Your task to perform on an android device: delete a single message in the gmail app Image 0: 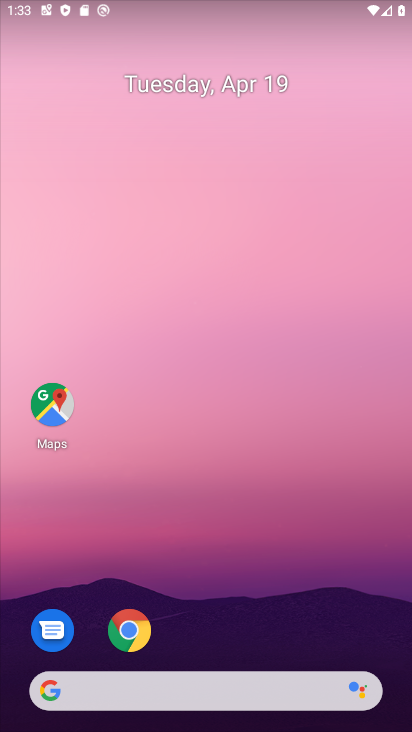
Step 0: drag from (218, 564) to (252, 35)
Your task to perform on an android device: delete a single message in the gmail app Image 1: 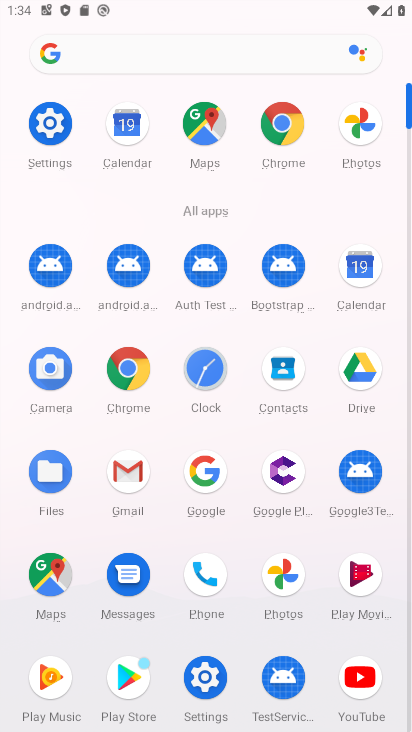
Step 1: drag from (252, 642) to (258, 277)
Your task to perform on an android device: delete a single message in the gmail app Image 2: 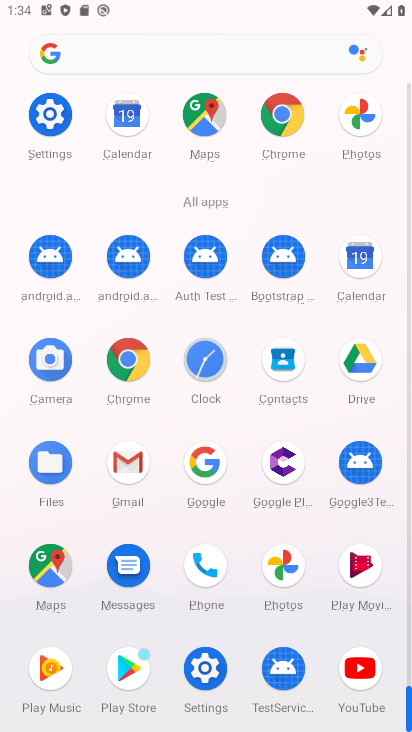
Step 2: drag from (224, 639) to (200, 302)
Your task to perform on an android device: delete a single message in the gmail app Image 3: 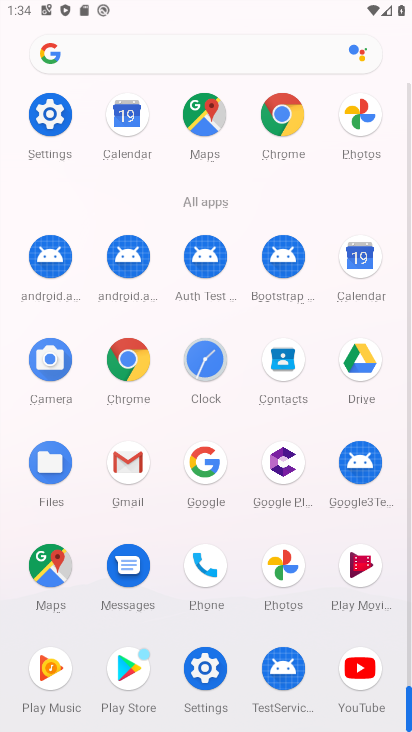
Step 3: click (163, 46)
Your task to perform on an android device: delete a single message in the gmail app Image 4: 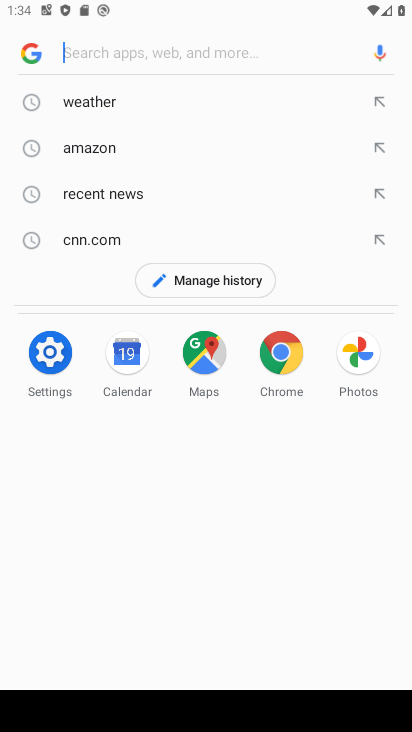
Step 4: type "we"
Your task to perform on an android device: delete a single message in the gmail app Image 5: 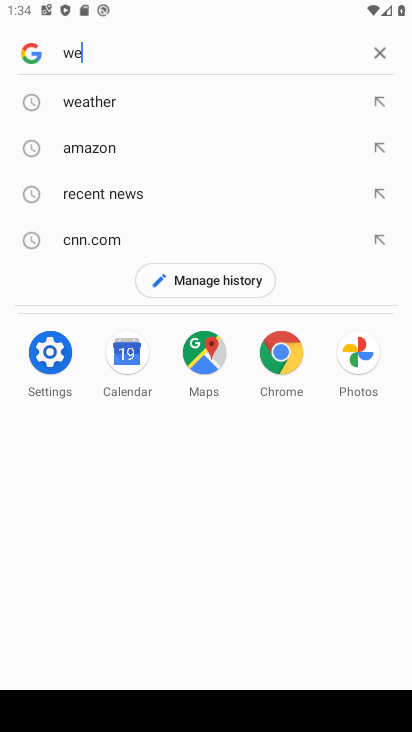
Step 5: press home button
Your task to perform on an android device: delete a single message in the gmail app Image 6: 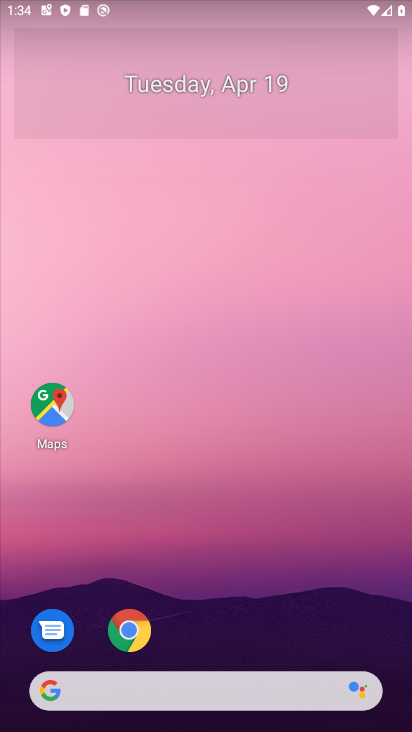
Step 6: drag from (233, 370) to (224, 65)
Your task to perform on an android device: delete a single message in the gmail app Image 7: 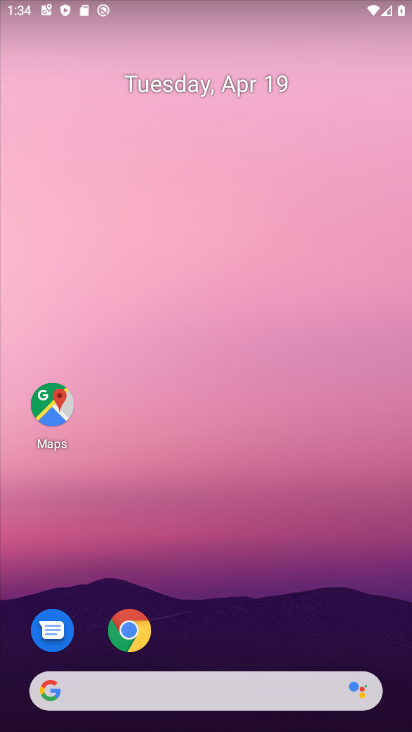
Step 7: drag from (244, 565) to (154, 17)
Your task to perform on an android device: delete a single message in the gmail app Image 8: 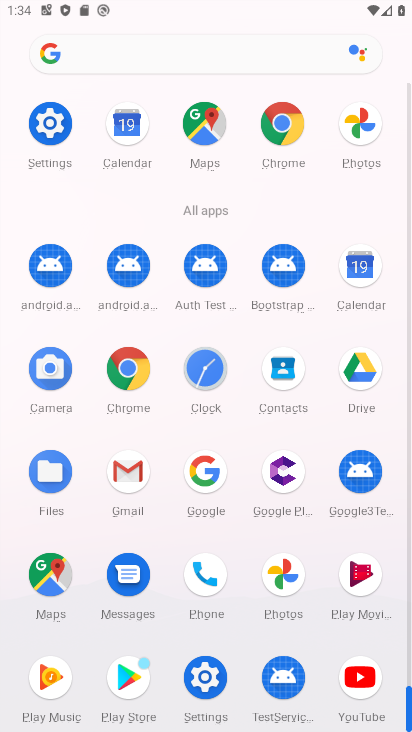
Step 8: click (121, 569)
Your task to perform on an android device: delete a single message in the gmail app Image 9: 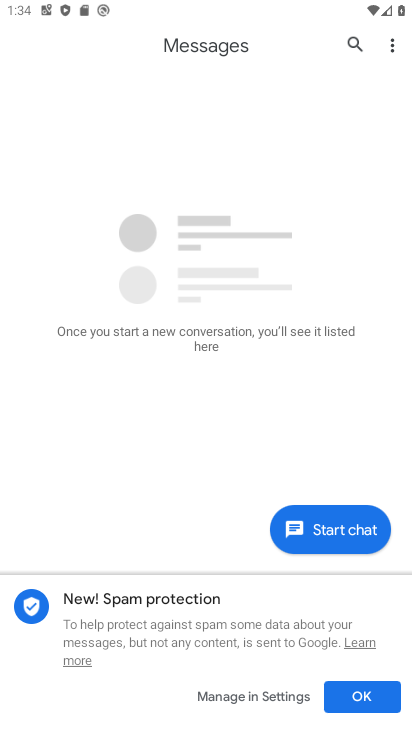
Step 9: press home button
Your task to perform on an android device: delete a single message in the gmail app Image 10: 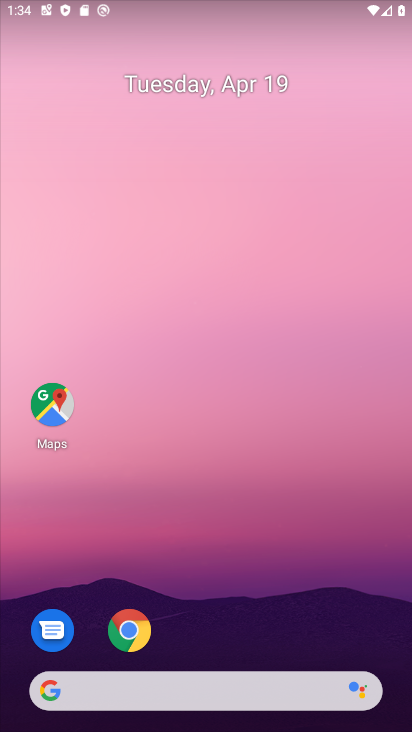
Step 10: drag from (194, 537) to (168, 8)
Your task to perform on an android device: delete a single message in the gmail app Image 11: 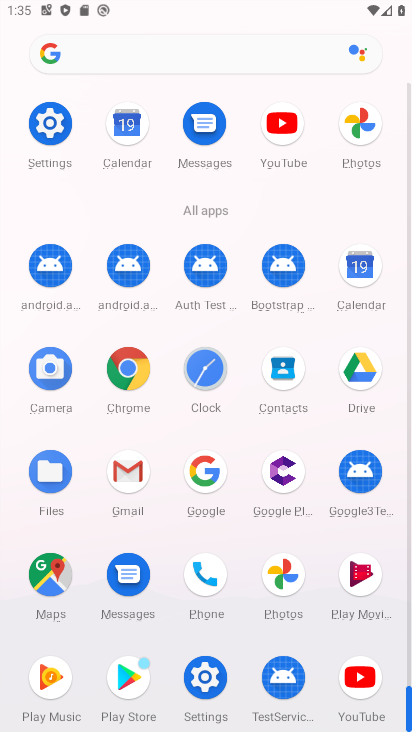
Step 11: click (124, 483)
Your task to perform on an android device: delete a single message in the gmail app Image 12: 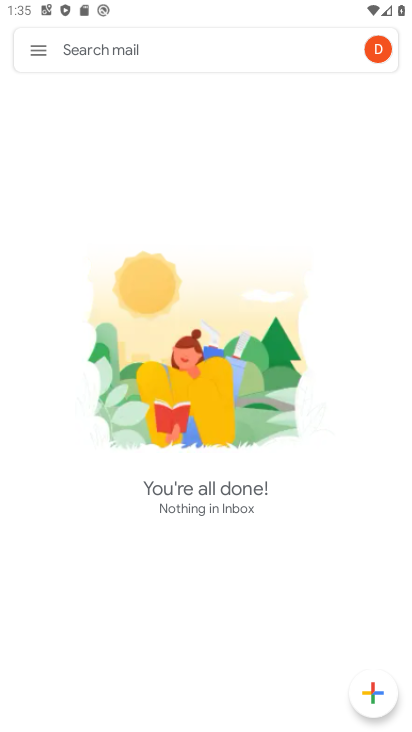
Step 12: click (39, 49)
Your task to perform on an android device: delete a single message in the gmail app Image 13: 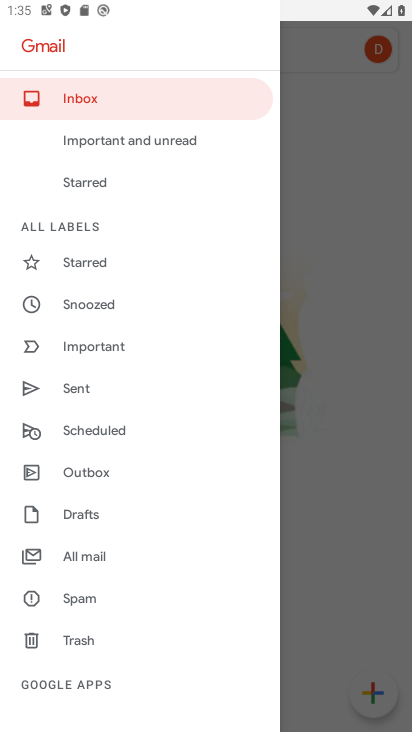
Step 13: click (100, 559)
Your task to perform on an android device: delete a single message in the gmail app Image 14: 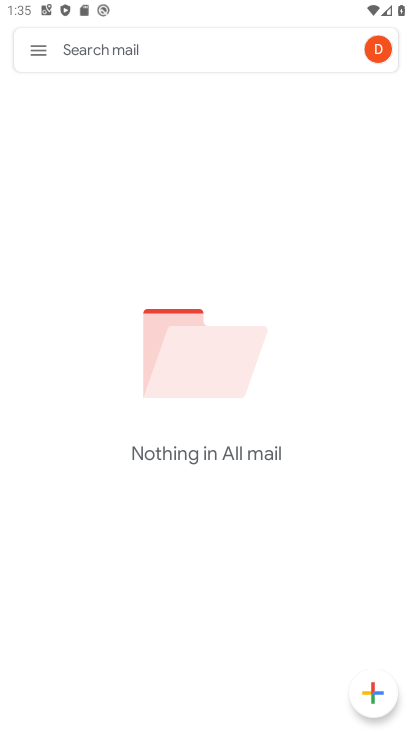
Step 14: task complete